Your task to perform on an android device: set the timer Image 0: 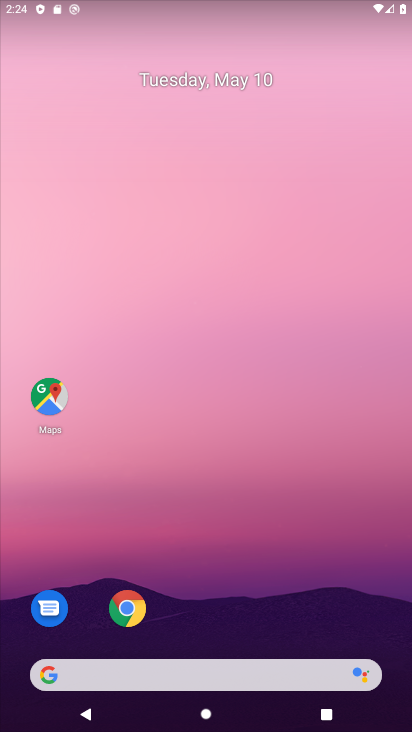
Step 0: drag from (364, 624) to (370, 60)
Your task to perform on an android device: set the timer Image 1: 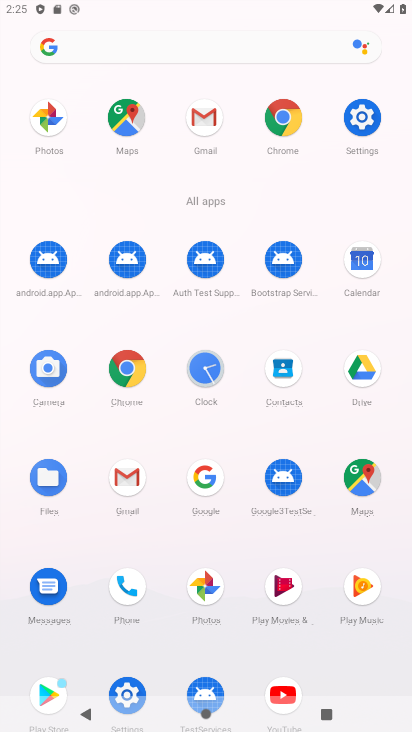
Step 1: click (208, 375)
Your task to perform on an android device: set the timer Image 2: 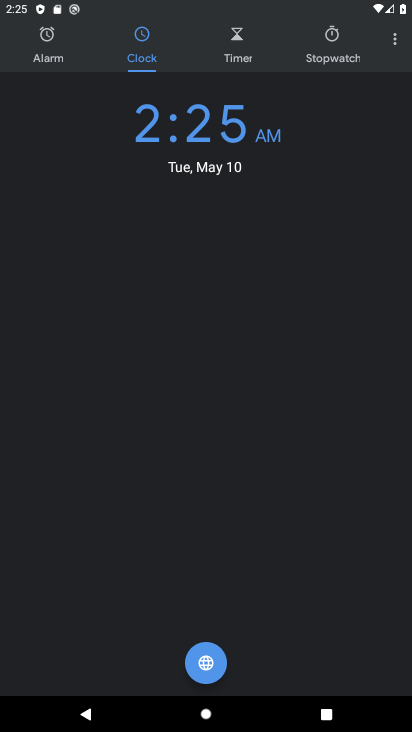
Step 2: click (233, 54)
Your task to perform on an android device: set the timer Image 3: 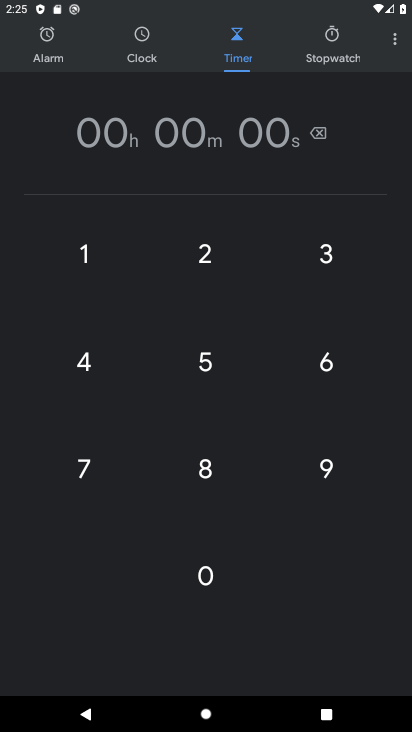
Step 3: click (201, 260)
Your task to perform on an android device: set the timer Image 4: 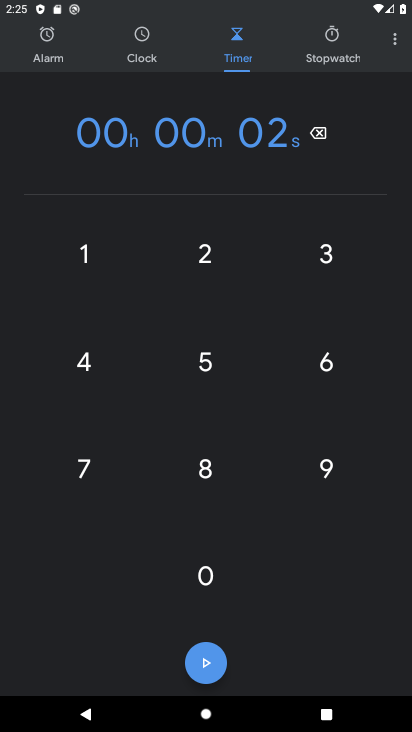
Step 4: click (212, 572)
Your task to perform on an android device: set the timer Image 5: 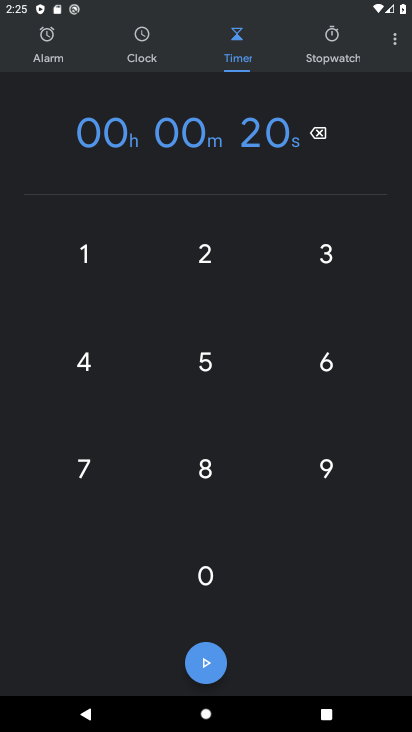
Step 5: click (209, 577)
Your task to perform on an android device: set the timer Image 6: 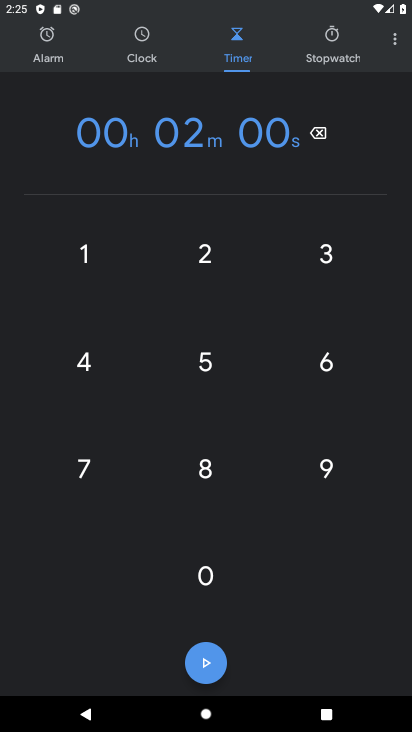
Step 6: click (209, 577)
Your task to perform on an android device: set the timer Image 7: 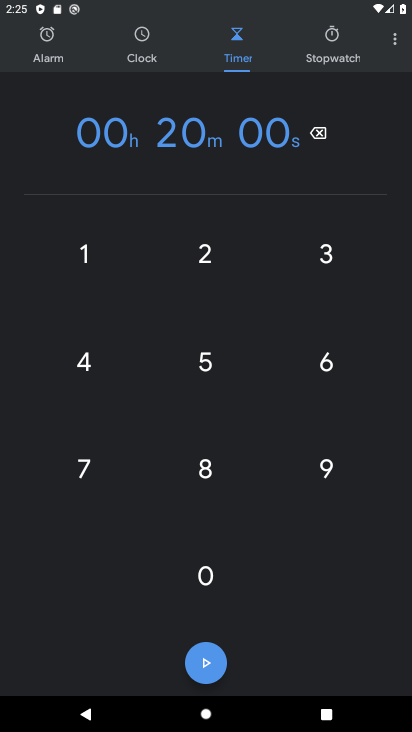
Step 7: click (212, 665)
Your task to perform on an android device: set the timer Image 8: 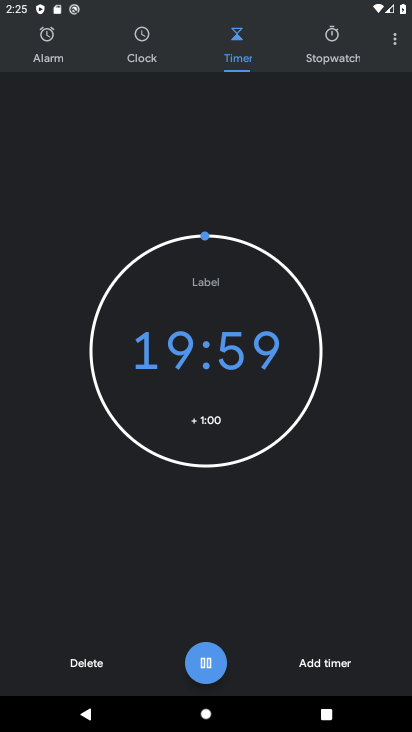
Step 8: task complete